Your task to perform on an android device: toggle wifi Image 0: 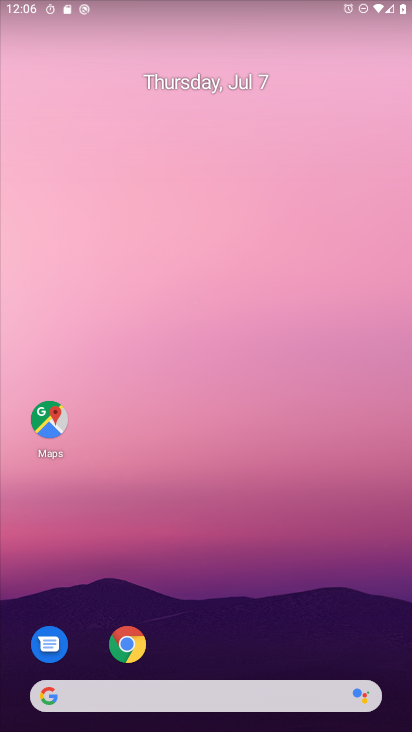
Step 0: drag from (215, 636) to (237, 113)
Your task to perform on an android device: toggle wifi Image 1: 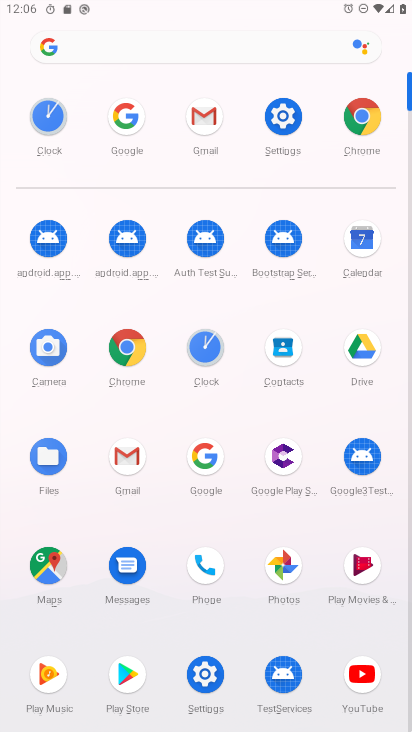
Step 1: click (282, 110)
Your task to perform on an android device: toggle wifi Image 2: 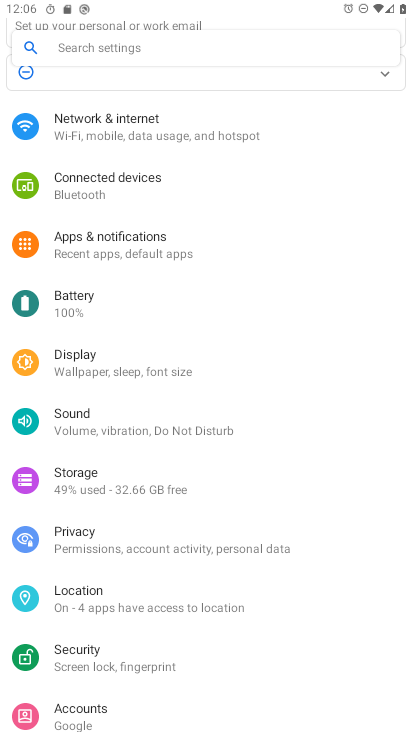
Step 2: click (206, 111)
Your task to perform on an android device: toggle wifi Image 3: 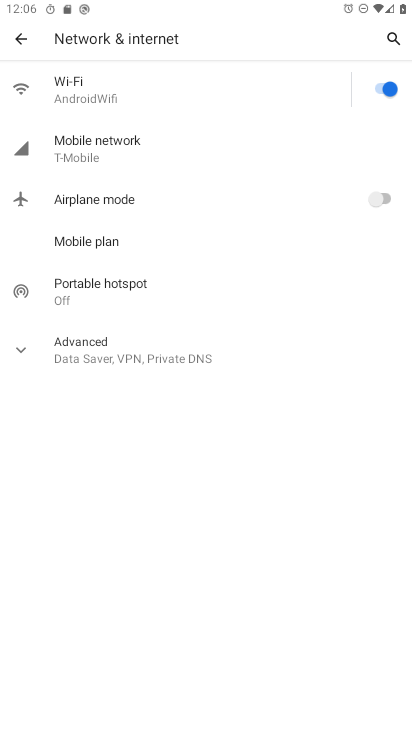
Step 3: click (390, 91)
Your task to perform on an android device: toggle wifi Image 4: 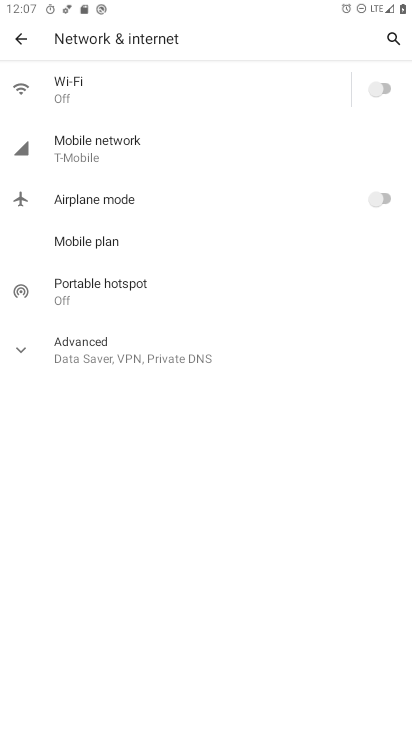
Step 4: task complete